Your task to perform on an android device: allow notifications from all sites in the chrome app Image 0: 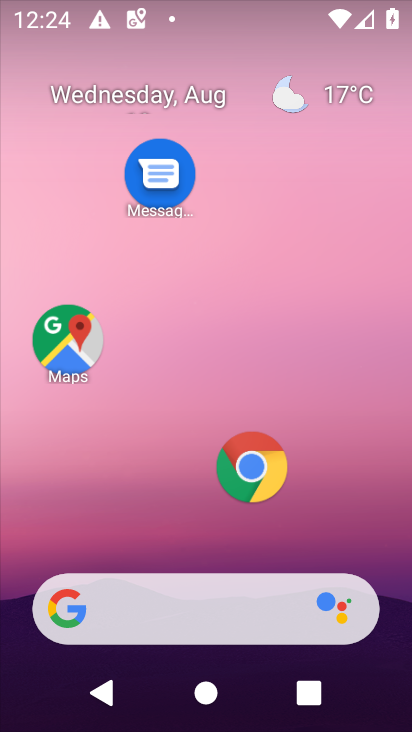
Step 0: drag from (161, 552) to (376, 36)
Your task to perform on an android device: allow notifications from all sites in the chrome app Image 1: 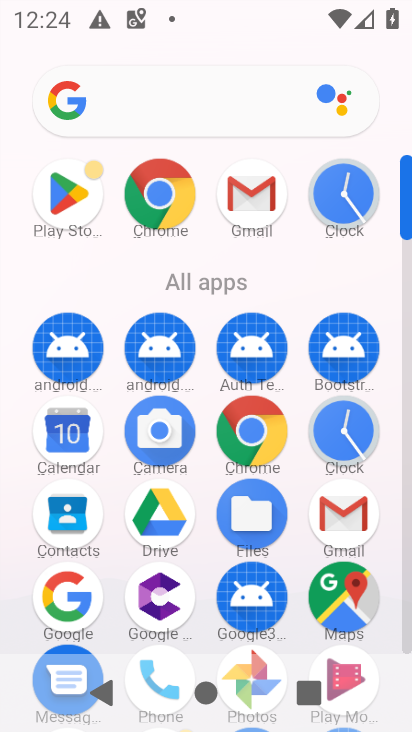
Step 1: drag from (298, 565) to (348, 197)
Your task to perform on an android device: allow notifications from all sites in the chrome app Image 2: 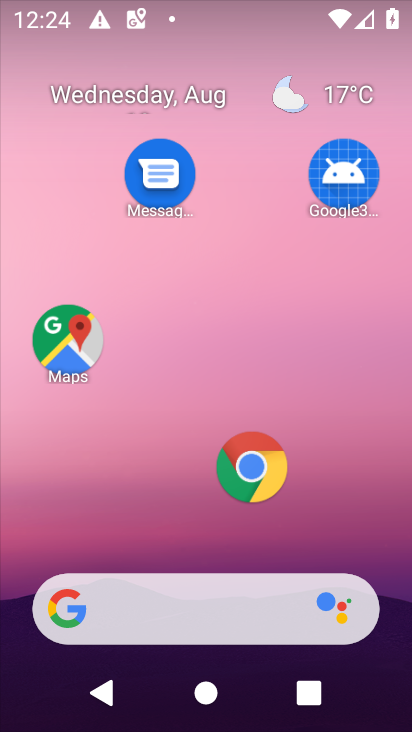
Step 2: drag from (183, 542) to (188, 50)
Your task to perform on an android device: allow notifications from all sites in the chrome app Image 3: 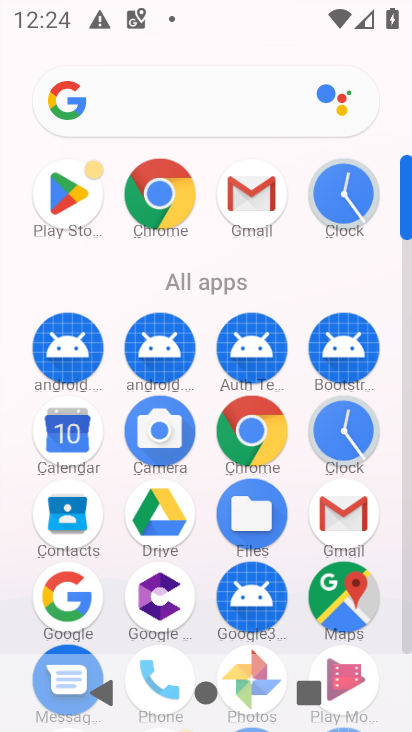
Step 3: drag from (194, 549) to (154, 240)
Your task to perform on an android device: allow notifications from all sites in the chrome app Image 4: 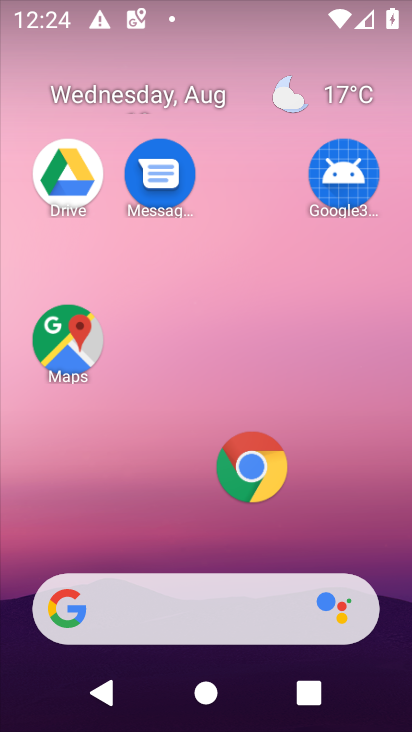
Step 4: drag from (205, 523) to (148, 24)
Your task to perform on an android device: allow notifications from all sites in the chrome app Image 5: 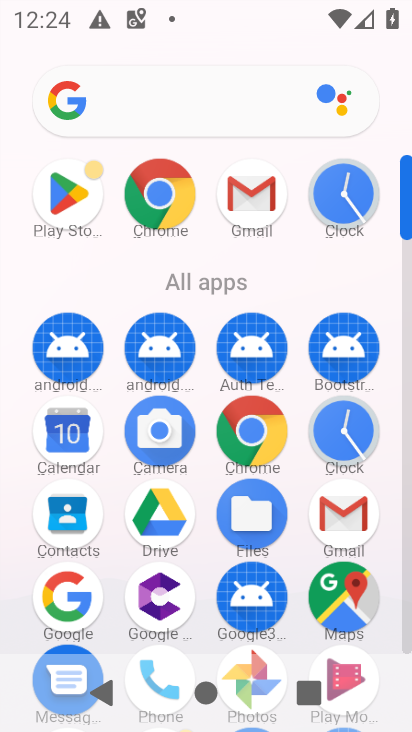
Step 5: drag from (200, 636) to (99, 191)
Your task to perform on an android device: allow notifications from all sites in the chrome app Image 6: 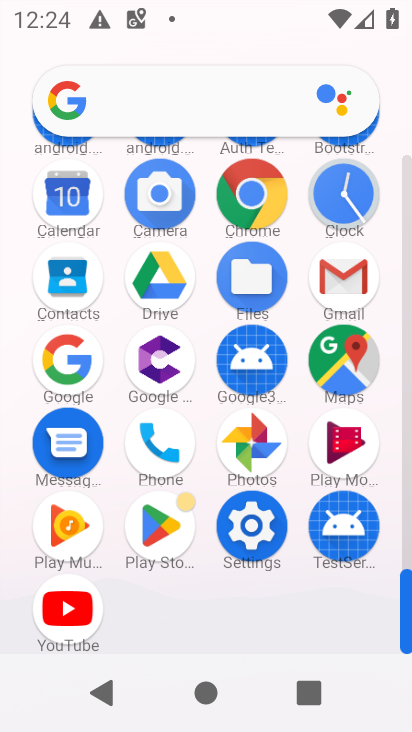
Step 6: click (245, 507)
Your task to perform on an android device: allow notifications from all sites in the chrome app Image 7: 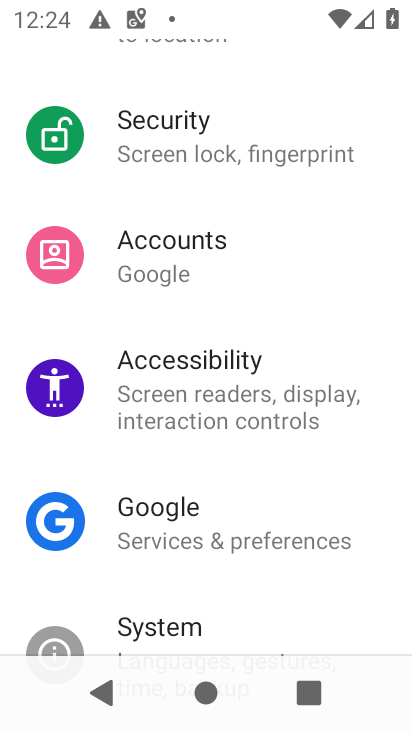
Step 7: drag from (155, 189) to (301, 378)
Your task to perform on an android device: allow notifications from all sites in the chrome app Image 8: 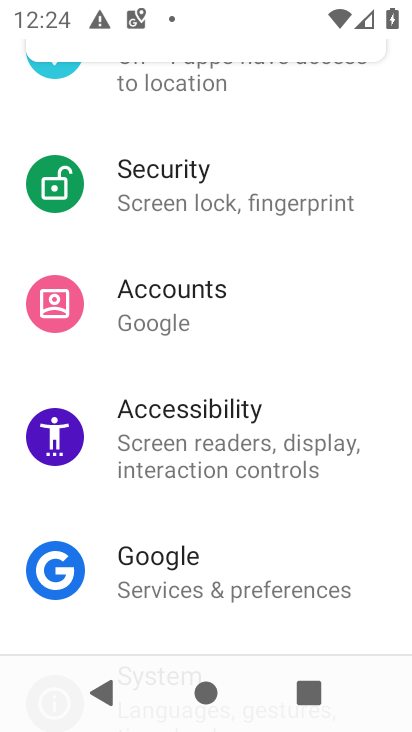
Step 8: drag from (304, 114) to (303, 309)
Your task to perform on an android device: allow notifications from all sites in the chrome app Image 9: 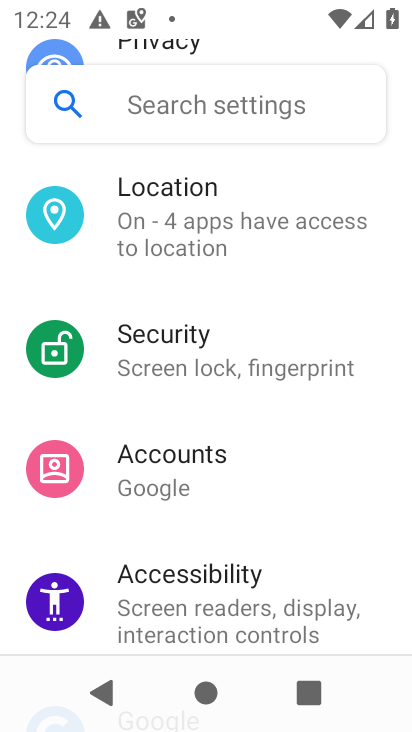
Step 9: drag from (258, 157) to (241, 685)
Your task to perform on an android device: allow notifications from all sites in the chrome app Image 10: 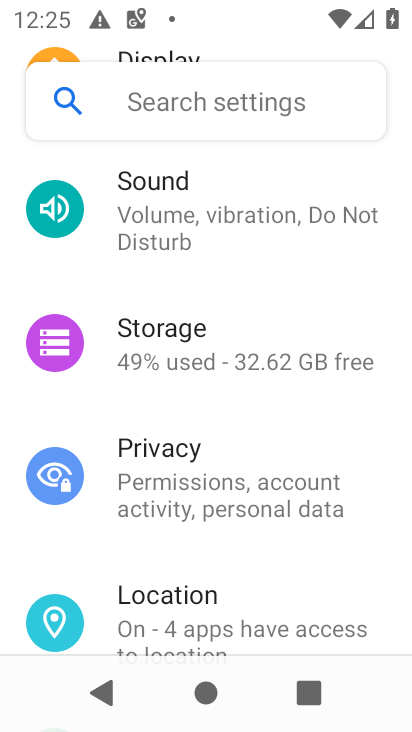
Step 10: drag from (194, 189) to (255, 720)
Your task to perform on an android device: allow notifications from all sites in the chrome app Image 11: 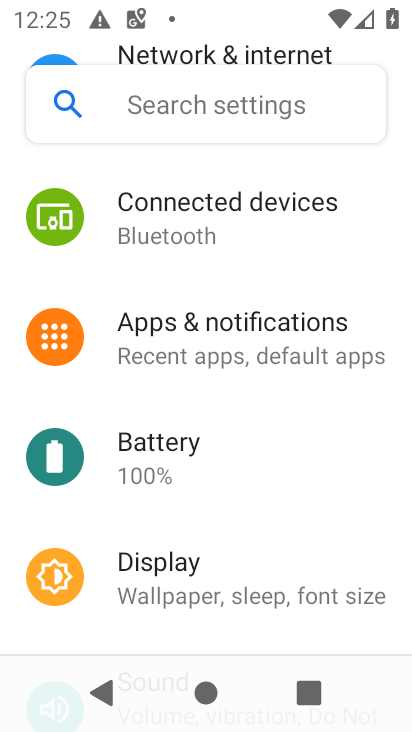
Step 11: click (175, 319)
Your task to perform on an android device: allow notifications from all sites in the chrome app Image 12: 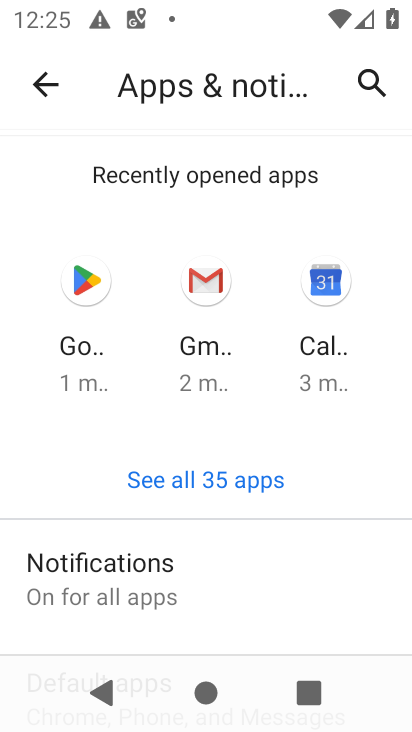
Step 12: click (158, 561)
Your task to perform on an android device: allow notifications from all sites in the chrome app Image 13: 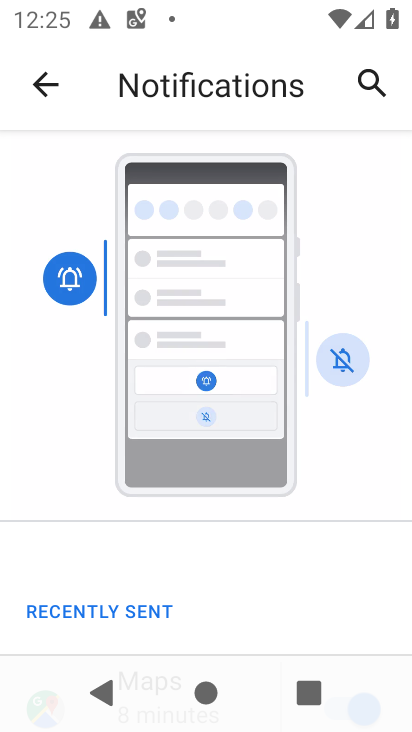
Step 13: drag from (158, 561) to (192, 69)
Your task to perform on an android device: allow notifications from all sites in the chrome app Image 14: 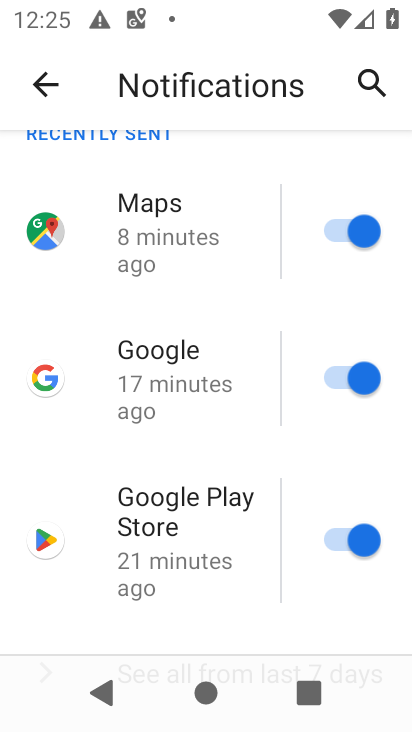
Step 14: drag from (186, 627) to (207, 289)
Your task to perform on an android device: allow notifications from all sites in the chrome app Image 15: 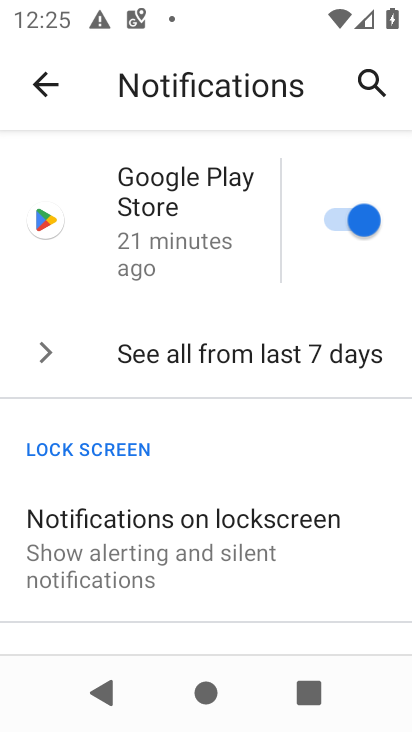
Step 15: drag from (144, 602) to (127, 258)
Your task to perform on an android device: allow notifications from all sites in the chrome app Image 16: 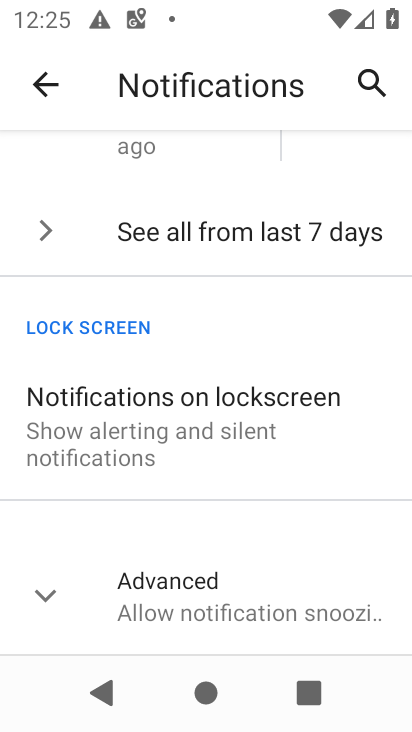
Step 16: drag from (230, 542) to (243, 137)
Your task to perform on an android device: allow notifications from all sites in the chrome app Image 17: 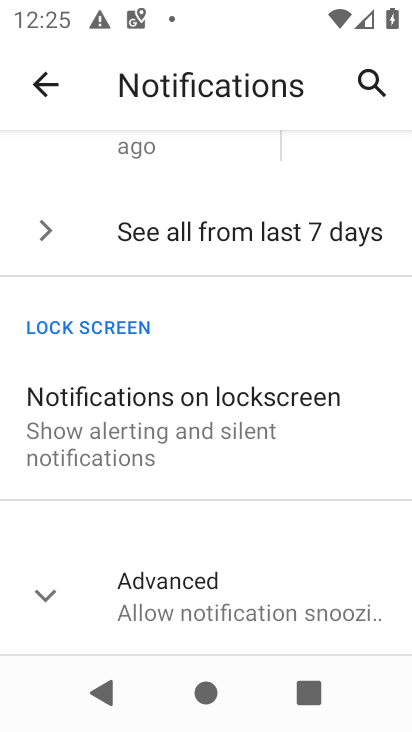
Step 17: click (194, 620)
Your task to perform on an android device: allow notifications from all sites in the chrome app Image 18: 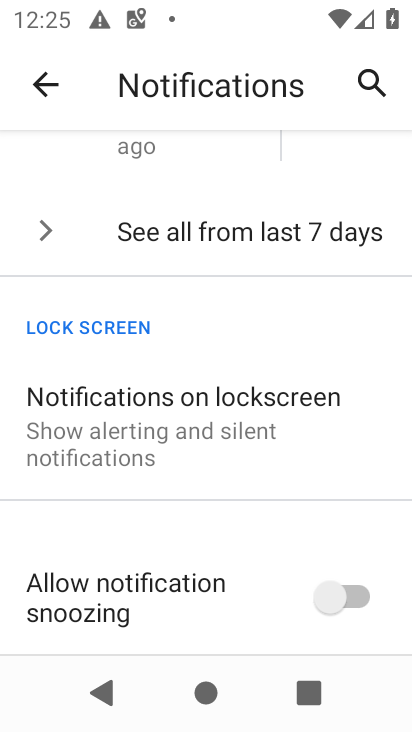
Step 18: task complete